Your task to perform on an android device: change your default location settings in chrome Image 0: 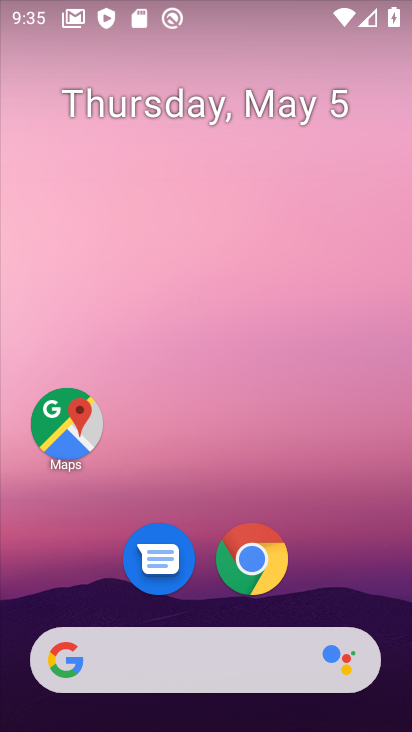
Step 0: drag from (360, 559) to (380, 52)
Your task to perform on an android device: change your default location settings in chrome Image 1: 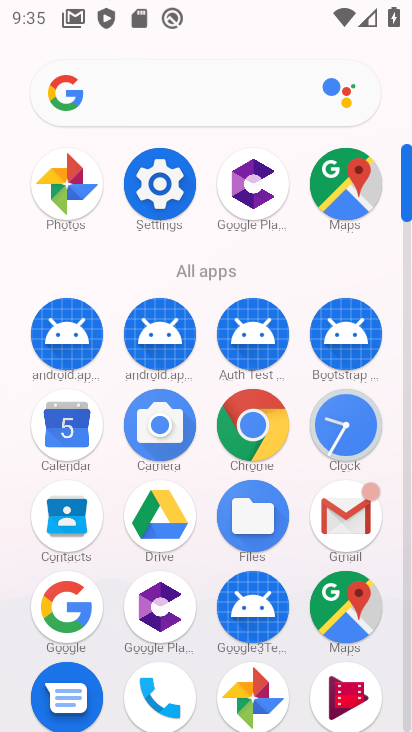
Step 1: click (154, 205)
Your task to perform on an android device: change your default location settings in chrome Image 2: 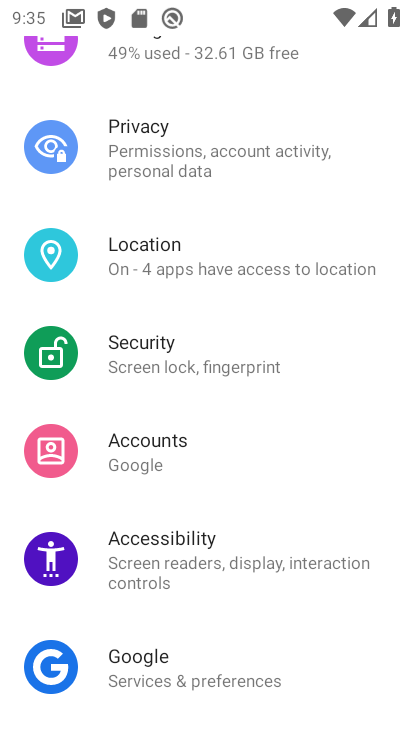
Step 2: drag from (263, 237) to (279, 539)
Your task to perform on an android device: change your default location settings in chrome Image 3: 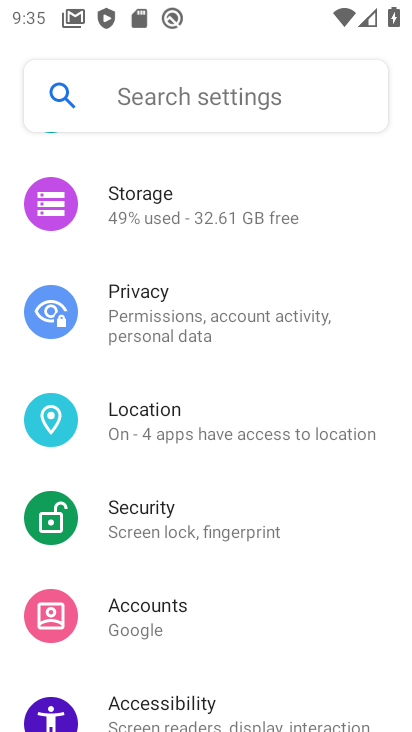
Step 3: drag from (193, 573) to (154, 227)
Your task to perform on an android device: change your default location settings in chrome Image 4: 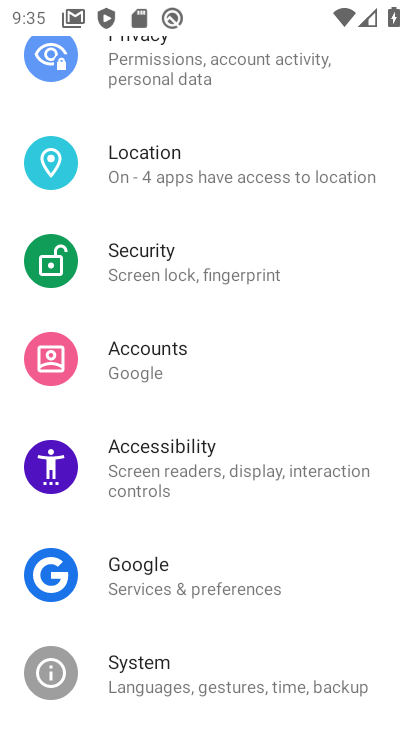
Step 4: click (140, 159)
Your task to perform on an android device: change your default location settings in chrome Image 5: 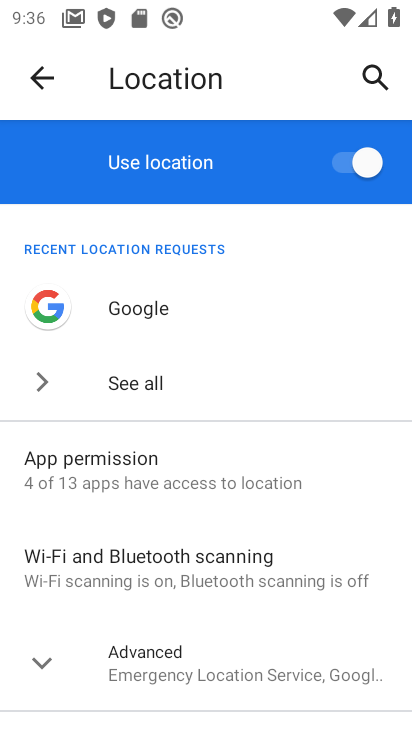
Step 5: drag from (246, 606) to (219, 260)
Your task to perform on an android device: change your default location settings in chrome Image 6: 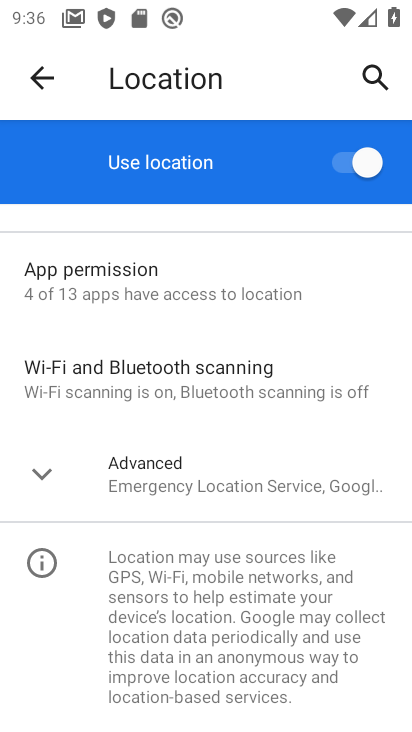
Step 6: click (348, 158)
Your task to perform on an android device: change your default location settings in chrome Image 7: 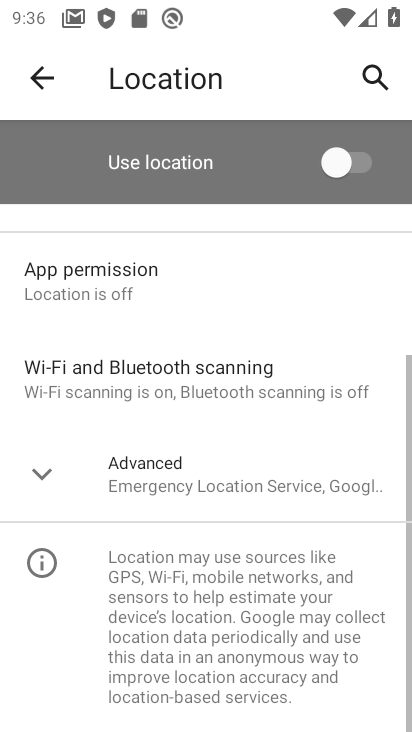
Step 7: task complete